Your task to perform on an android device: Toggle the flashlight Image 0: 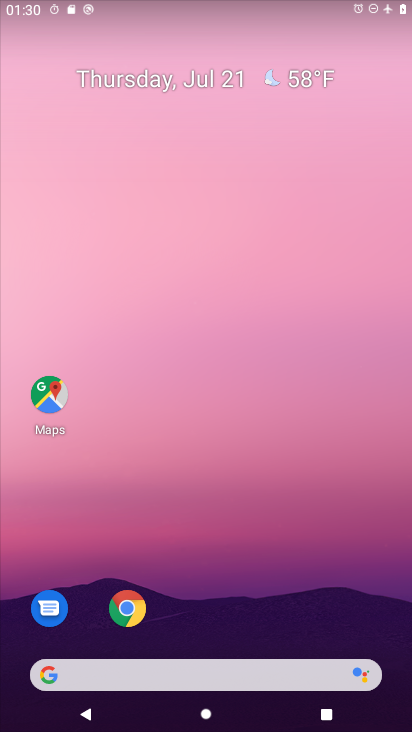
Step 0: drag from (217, 2) to (370, 622)
Your task to perform on an android device: Toggle the flashlight Image 1: 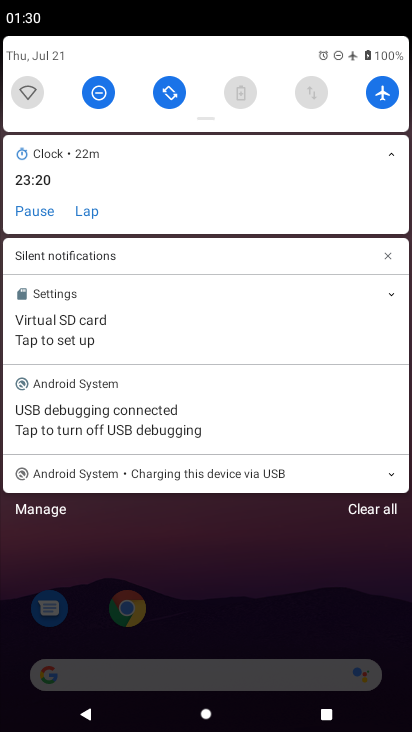
Step 1: task complete